Your task to perform on an android device: turn on notifications settings in the gmail app Image 0: 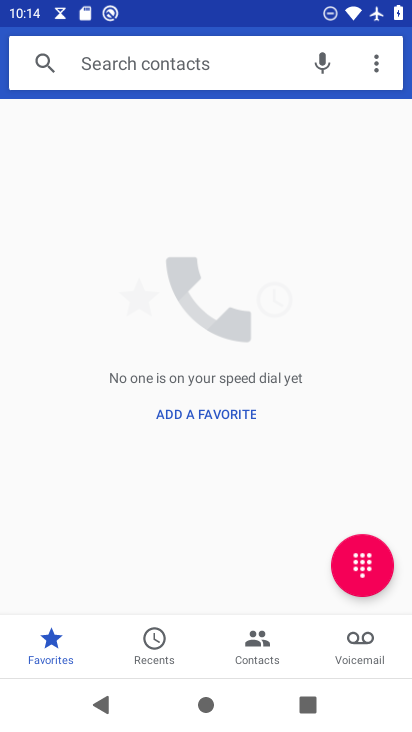
Step 0: press home button
Your task to perform on an android device: turn on notifications settings in the gmail app Image 1: 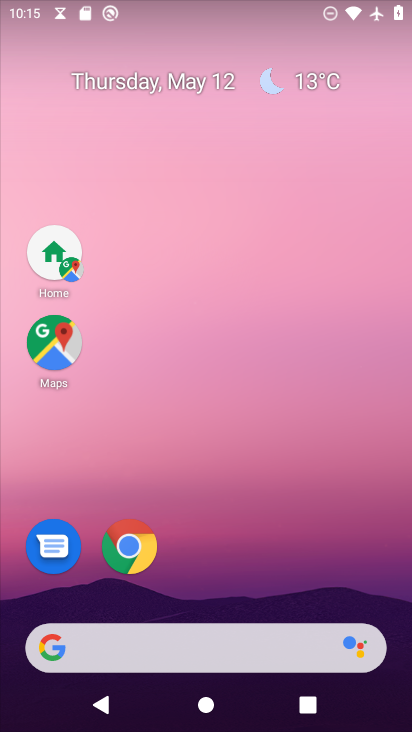
Step 1: drag from (150, 650) to (328, 131)
Your task to perform on an android device: turn on notifications settings in the gmail app Image 2: 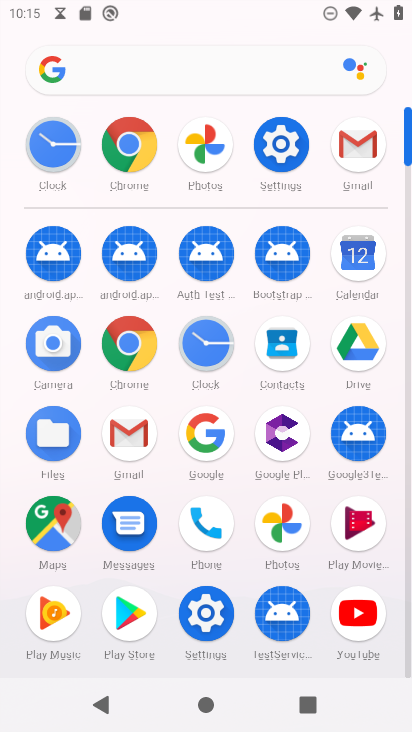
Step 2: click (127, 439)
Your task to perform on an android device: turn on notifications settings in the gmail app Image 3: 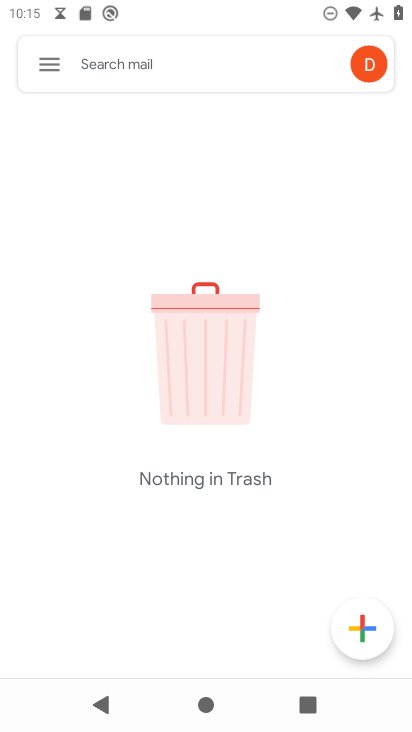
Step 3: click (54, 65)
Your task to perform on an android device: turn on notifications settings in the gmail app Image 4: 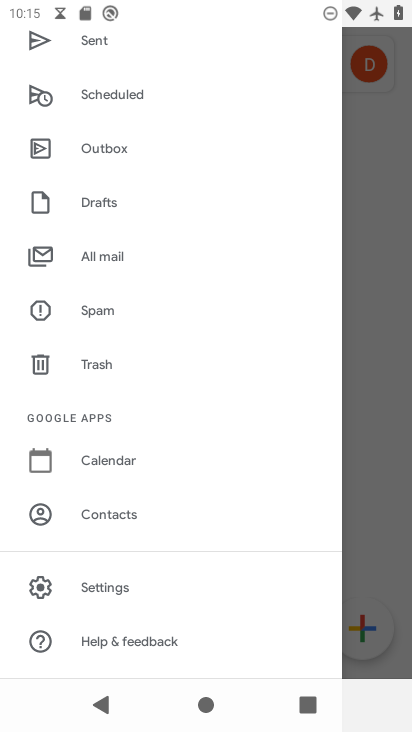
Step 4: click (124, 583)
Your task to perform on an android device: turn on notifications settings in the gmail app Image 5: 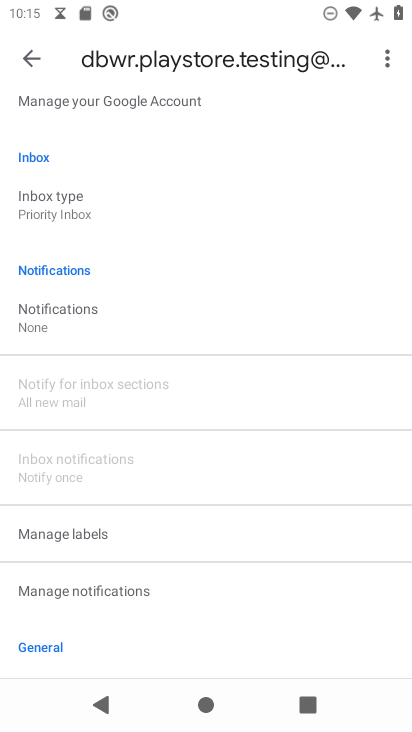
Step 5: click (60, 319)
Your task to perform on an android device: turn on notifications settings in the gmail app Image 6: 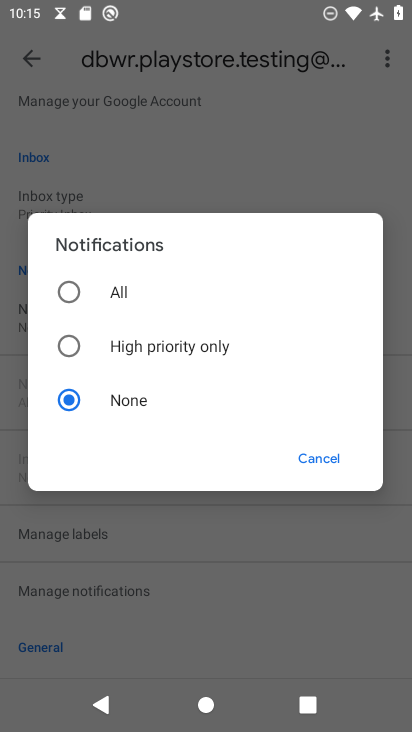
Step 6: click (74, 292)
Your task to perform on an android device: turn on notifications settings in the gmail app Image 7: 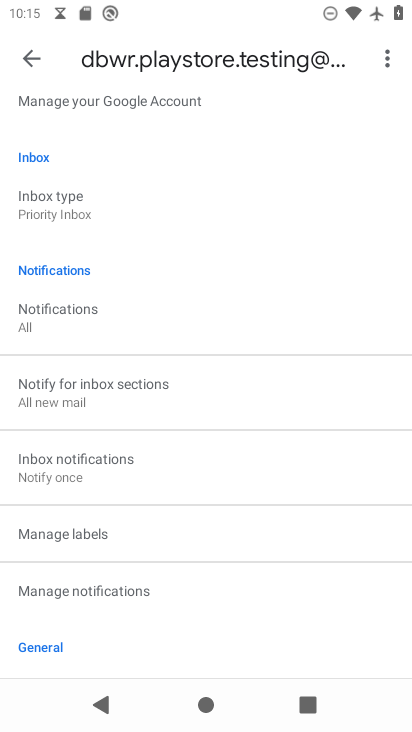
Step 7: task complete